Your task to perform on an android device: Search for a new desk on Ikea Image 0: 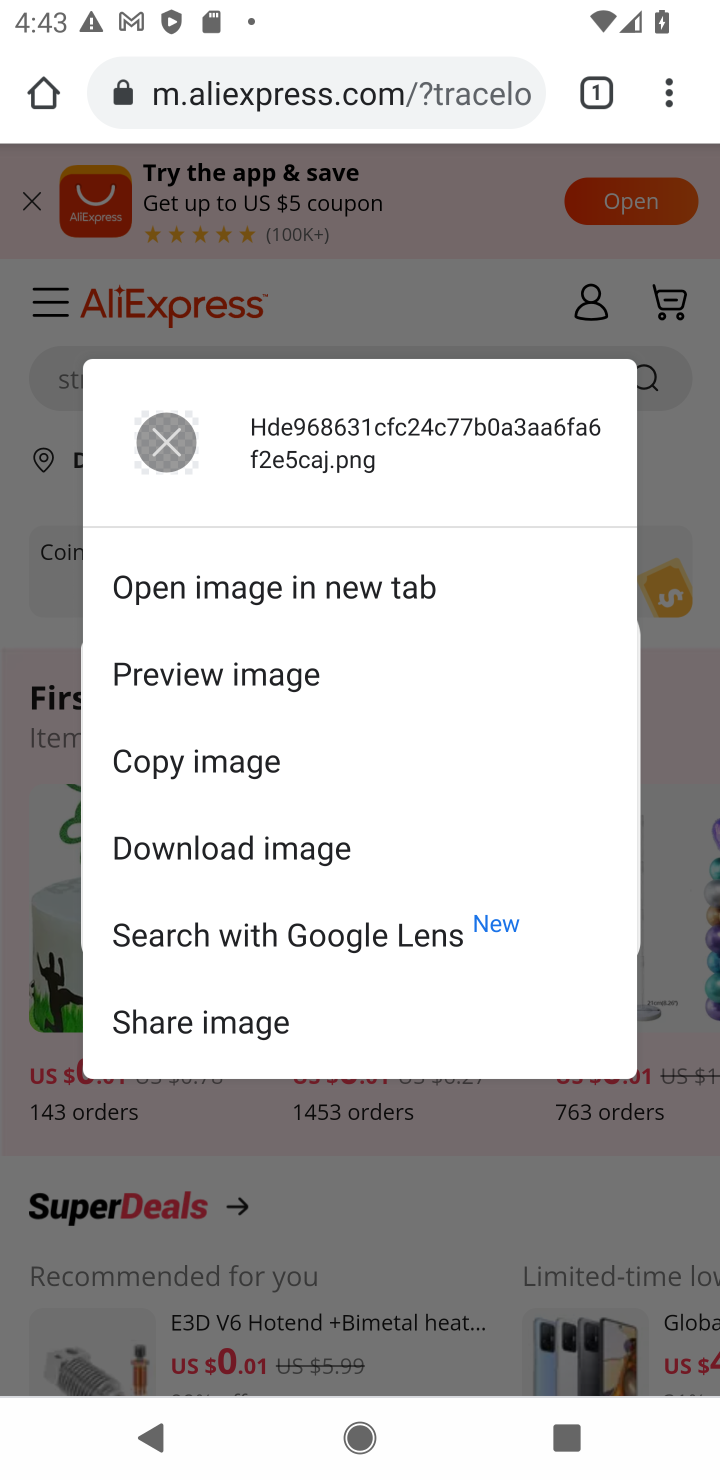
Step 0: press home button
Your task to perform on an android device: Search for a new desk on Ikea Image 1: 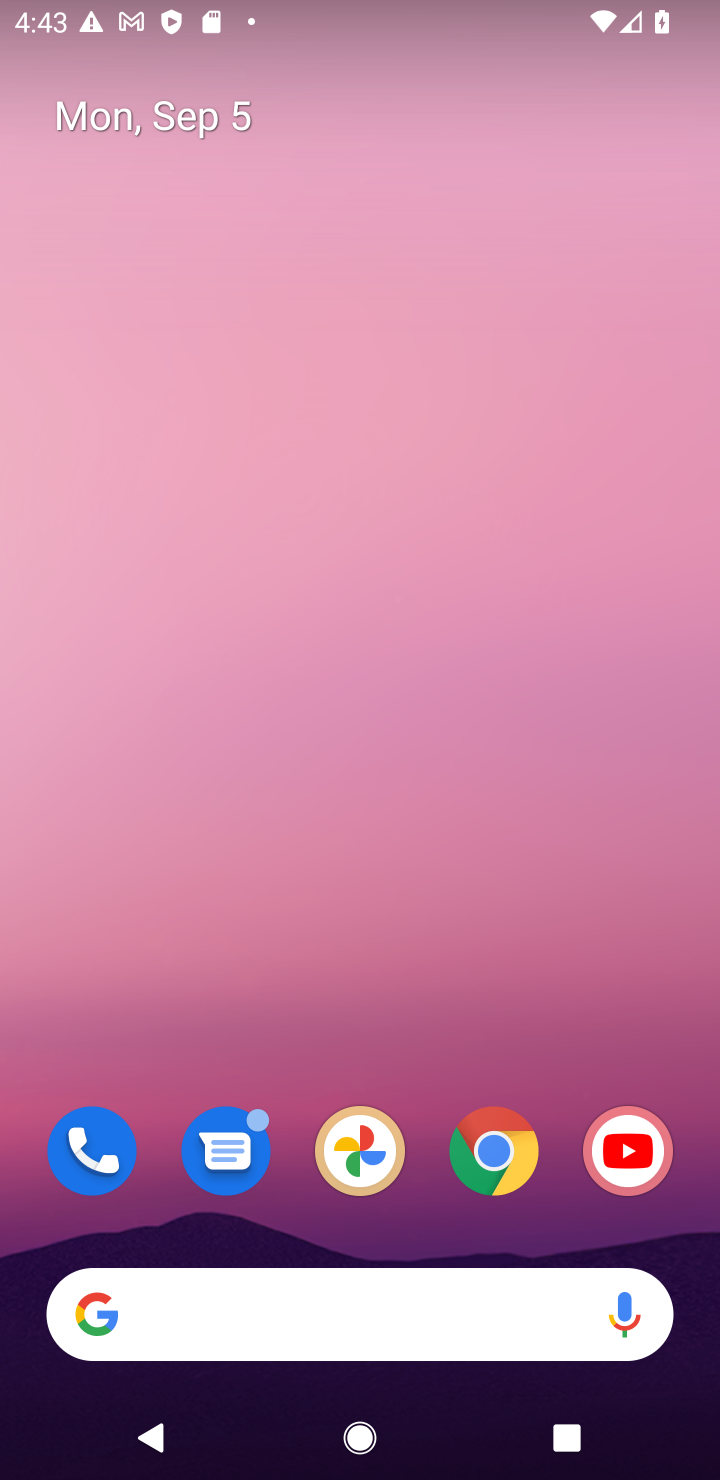
Step 1: click (517, 1139)
Your task to perform on an android device: Search for a new desk on Ikea Image 2: 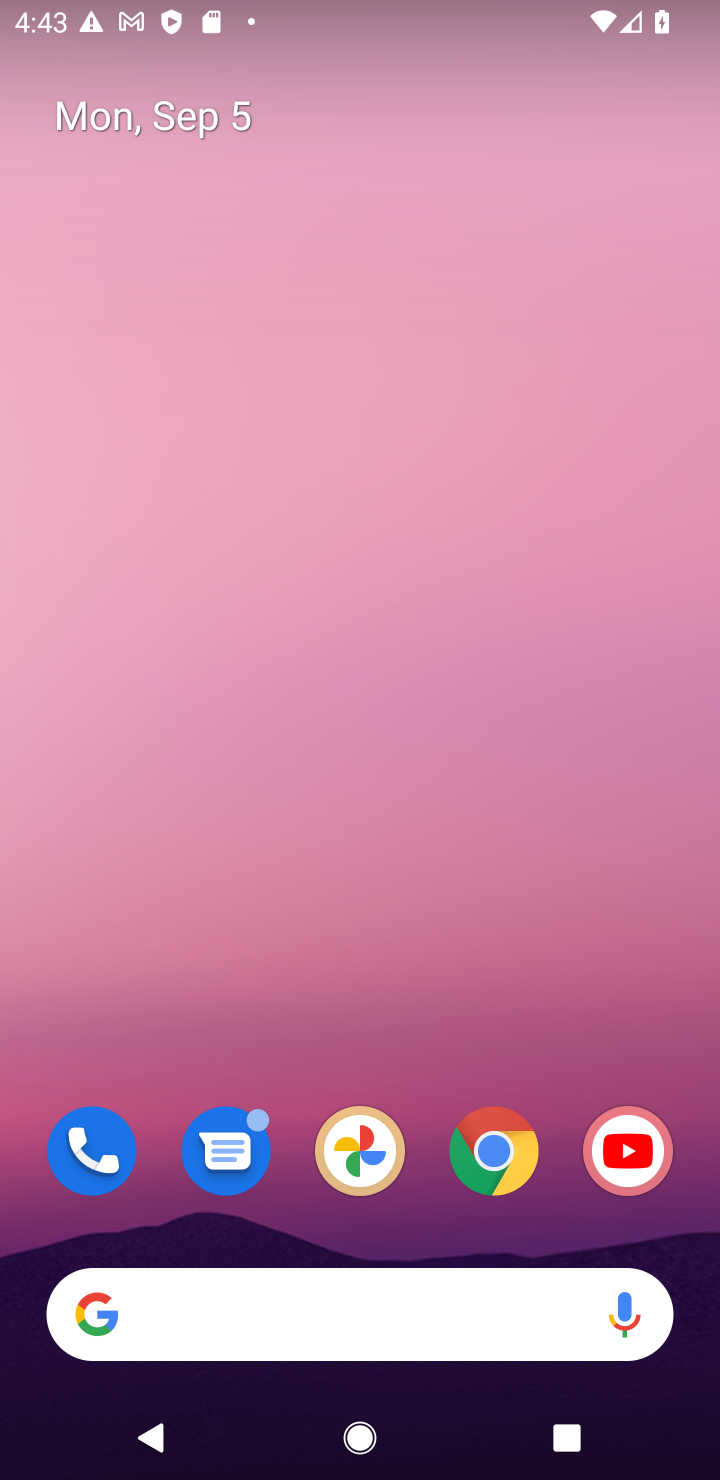
Step 2: click (517, 1139)
Your task to perform on an android device: Search for a new desk on Ikea Image 3: 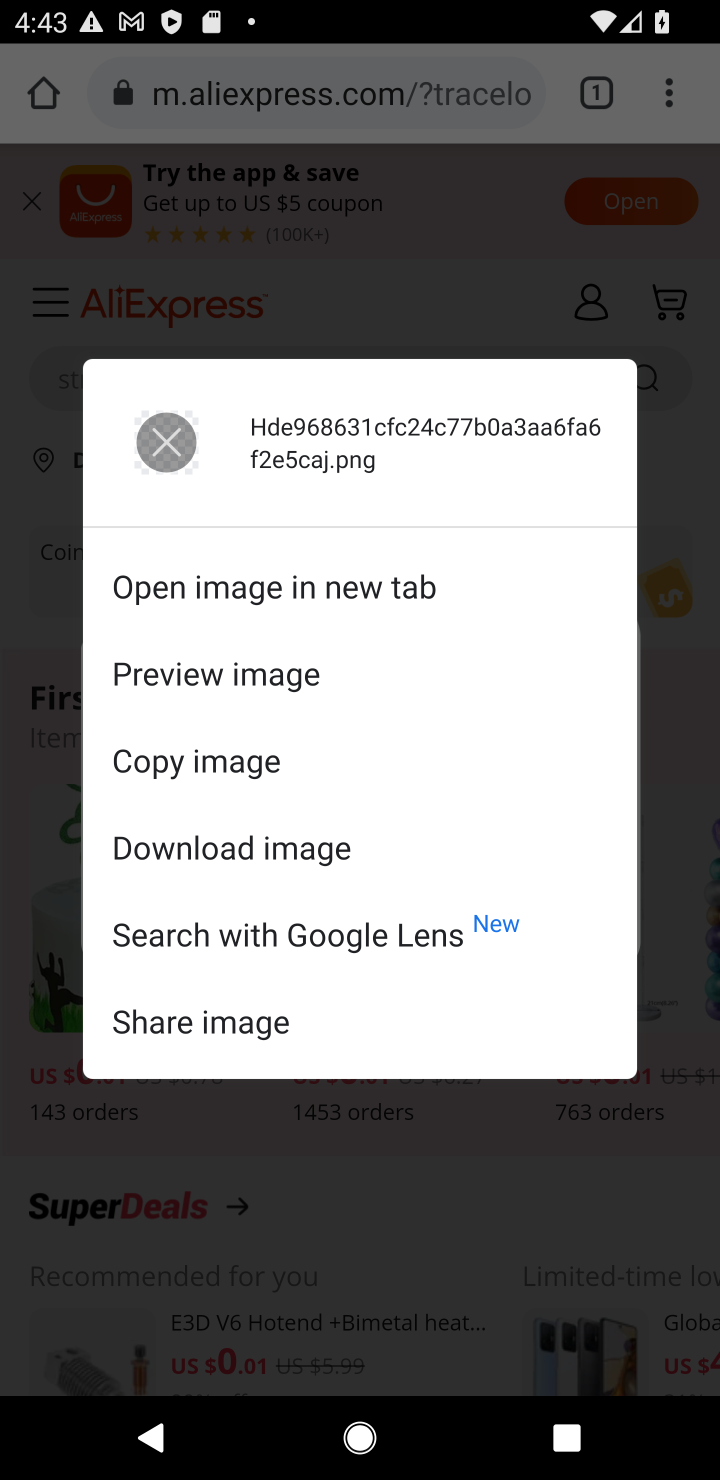
Step 3: click (176, 449)
Your task to perform on an android device: Search for a new desk on Ikea Image 4: 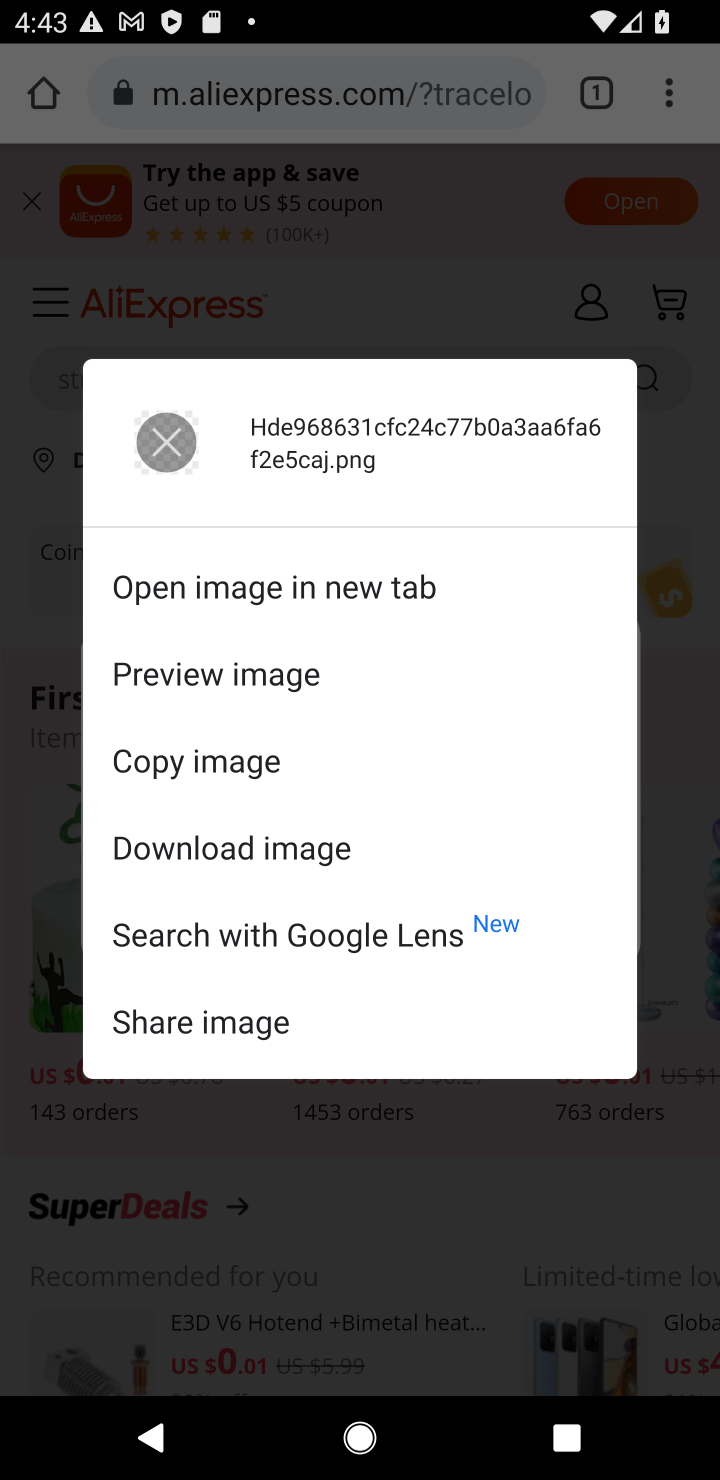
Step 4: click (318, 1206)
Your task to perform on an android device: Search for a new desk on Ikea Image 5: 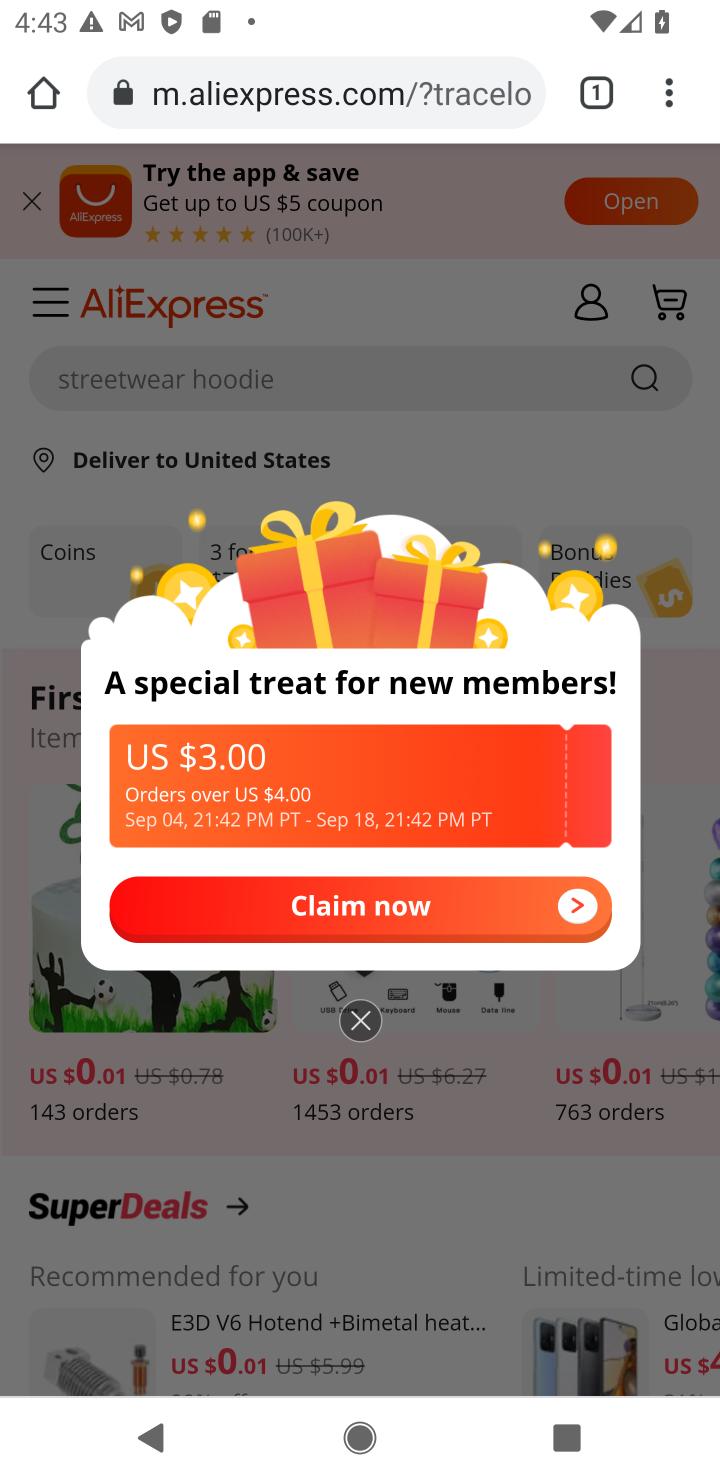
Step 5: click (412, 91)
Your task to perform on an android device: Search for a new desk on Ikea Image 6: 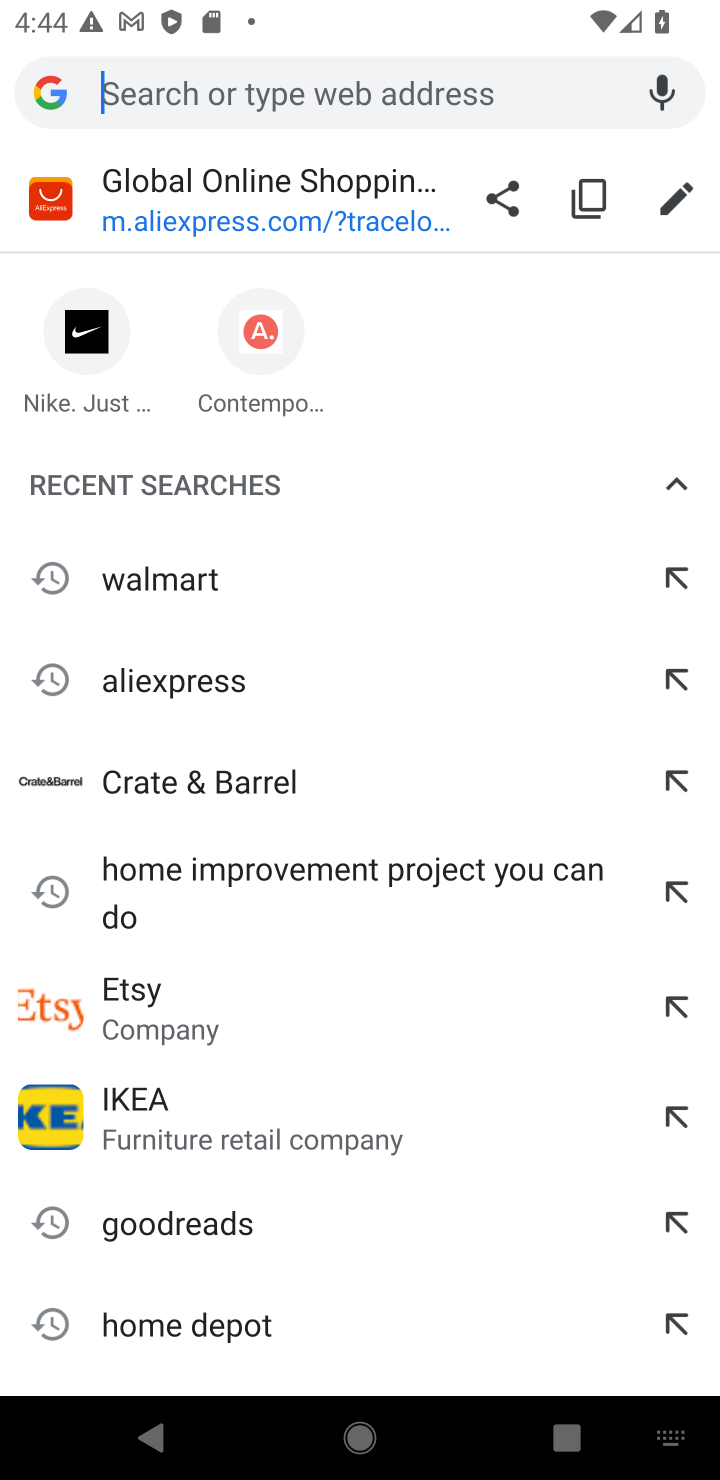
Step 6: click (209, 1114)
Your task to perform on an android device: Search for a new desk on Ikea Image 7: 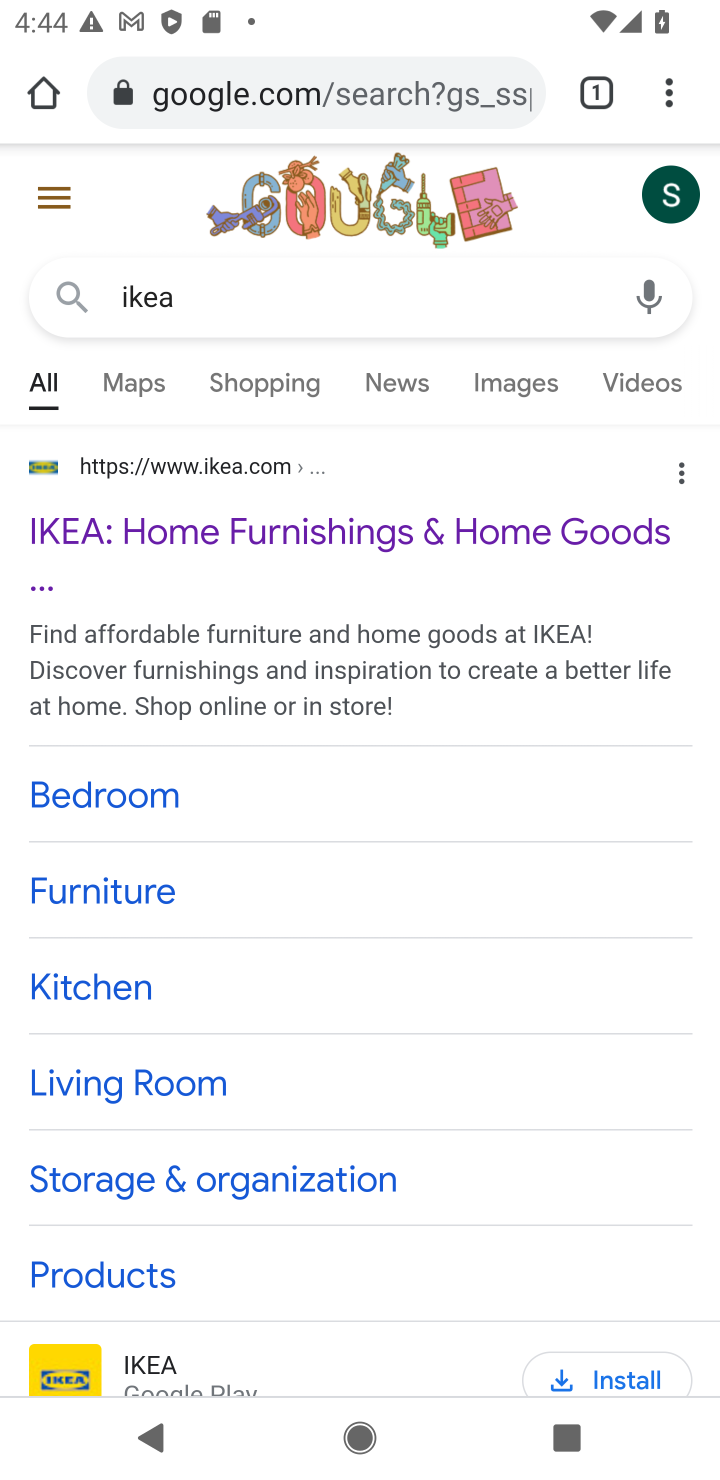
Step 7: click (235, 530)
Your task to perform on an android device: Search for a new desk on Ikea Image 8: 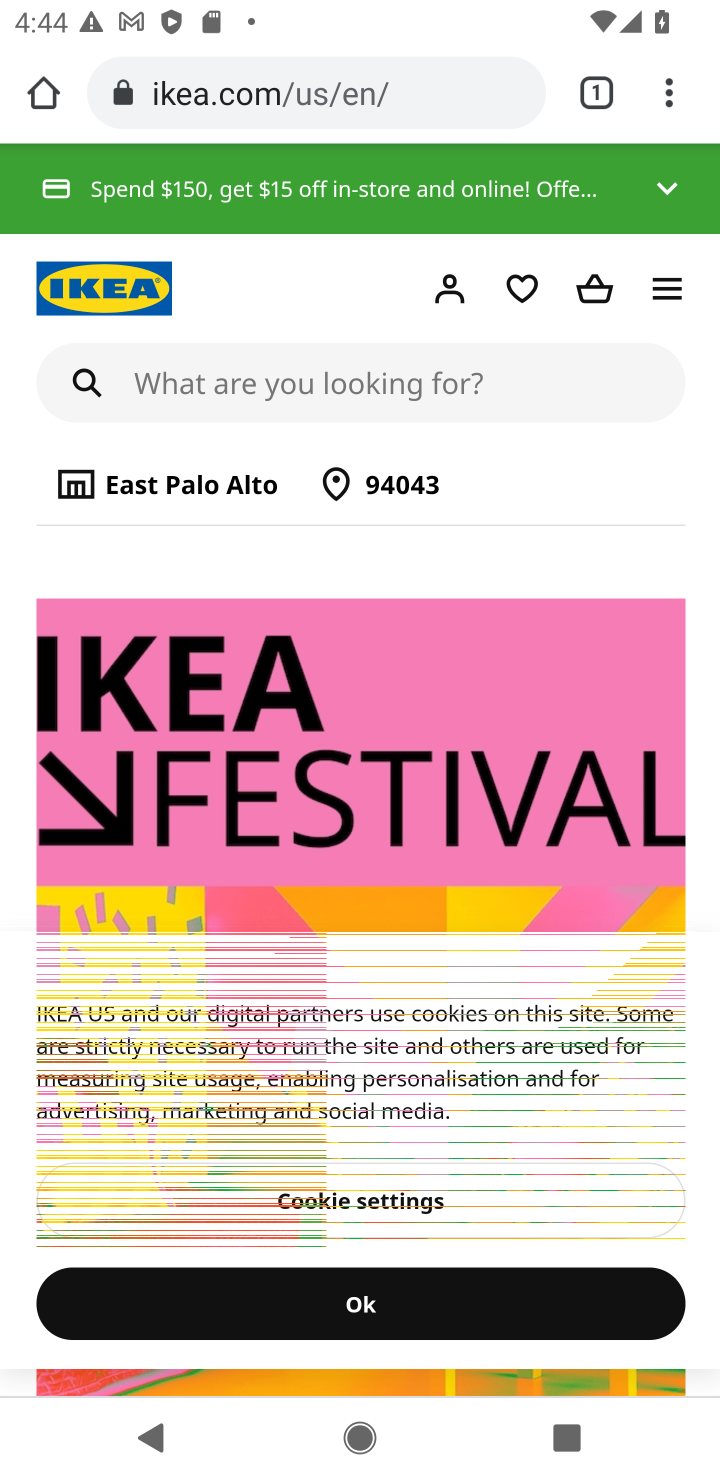
Step 8: click (452, 363)
Your task to perform on an android device: Search for a new desk on Ikea Image 9: 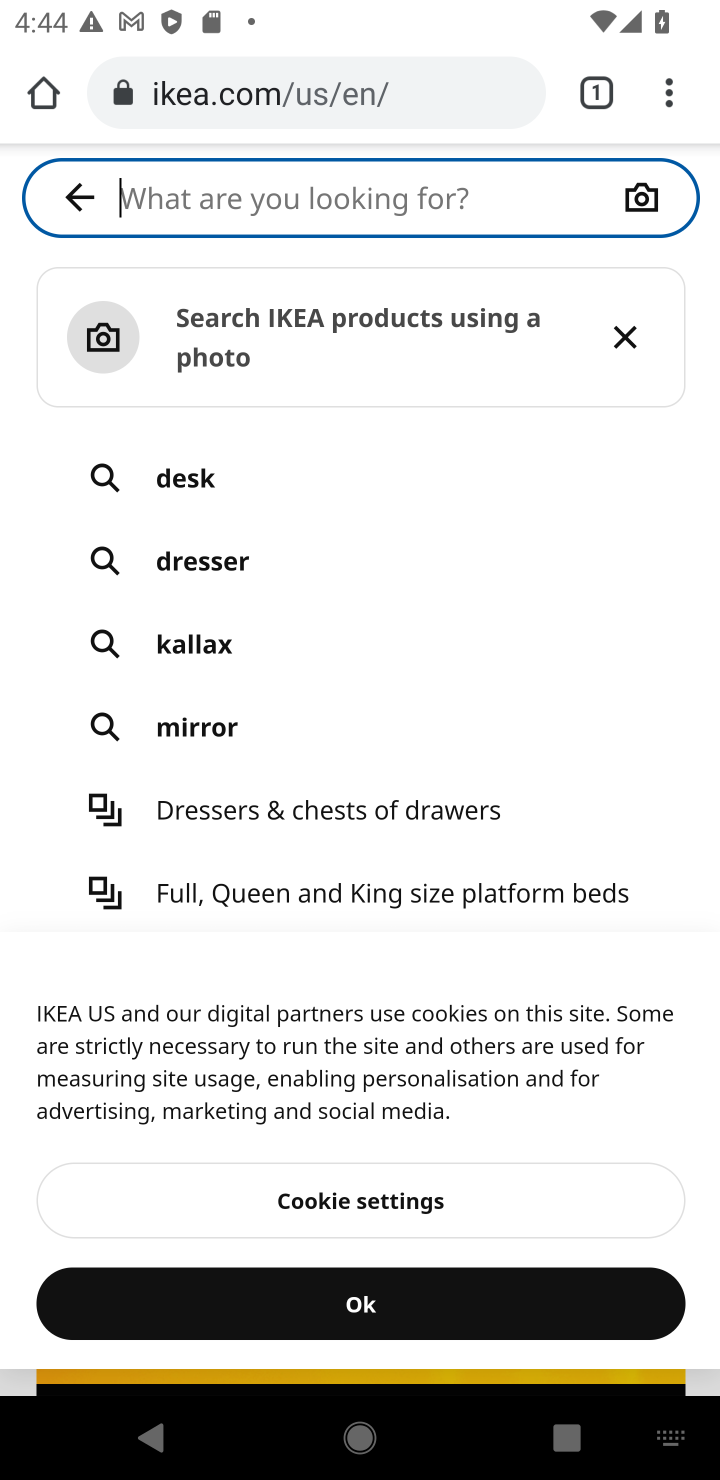
Step 9: type "new desk"
Your task to perform on an android device: Search for a new desk on Ikea Image 10: 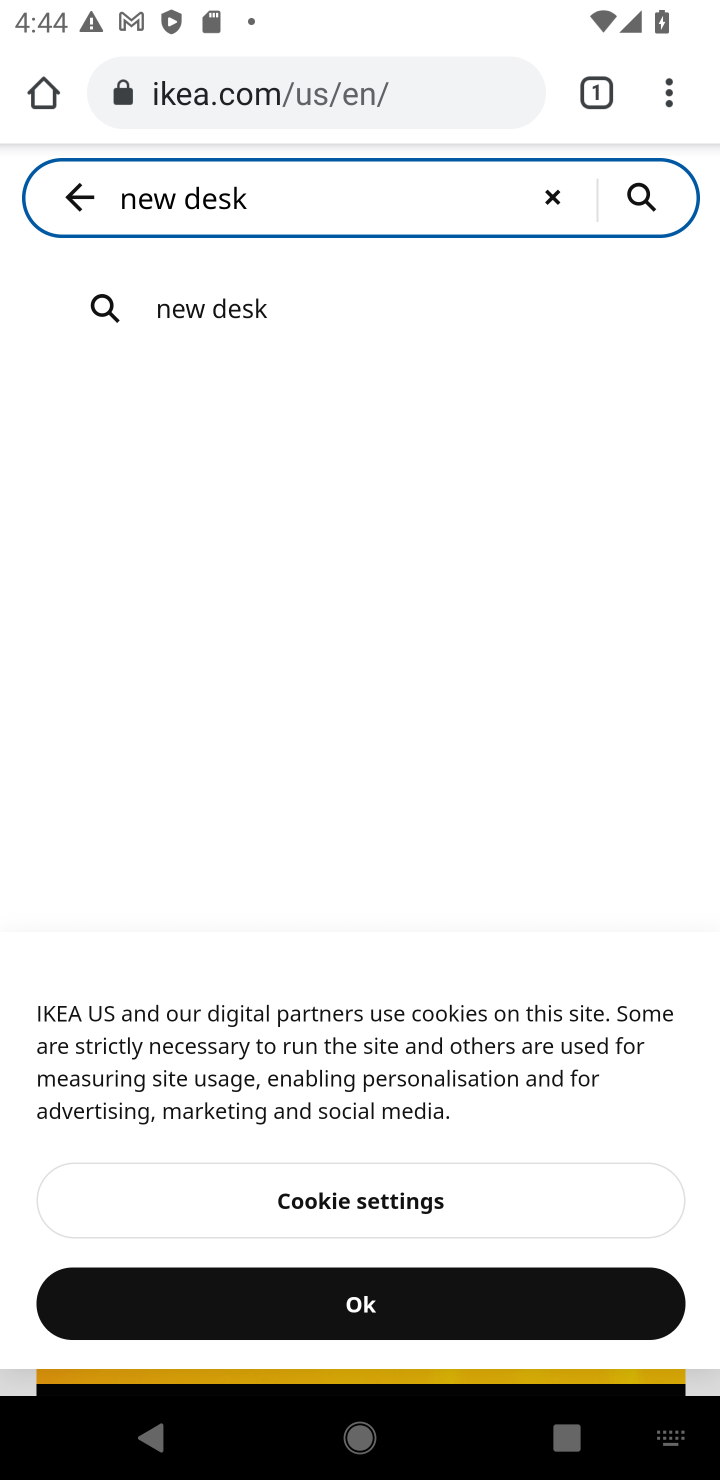
Step 10: click (211, 319)
Your task to perform on an android device: Search for a new desk on Ikea Image 11: 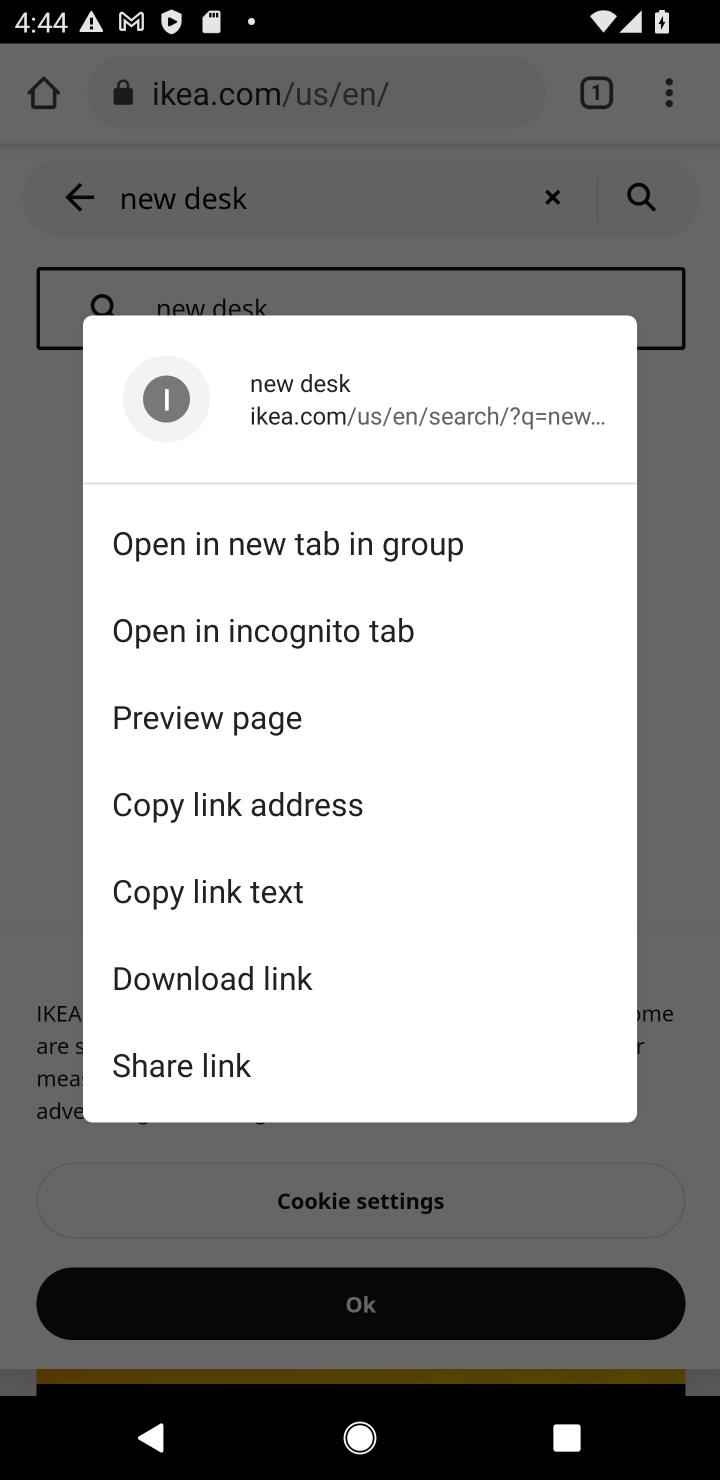
Step 11: click (531, 1207)
Your task to perform on an android device: Search for a new desk on Ikea Image 12: 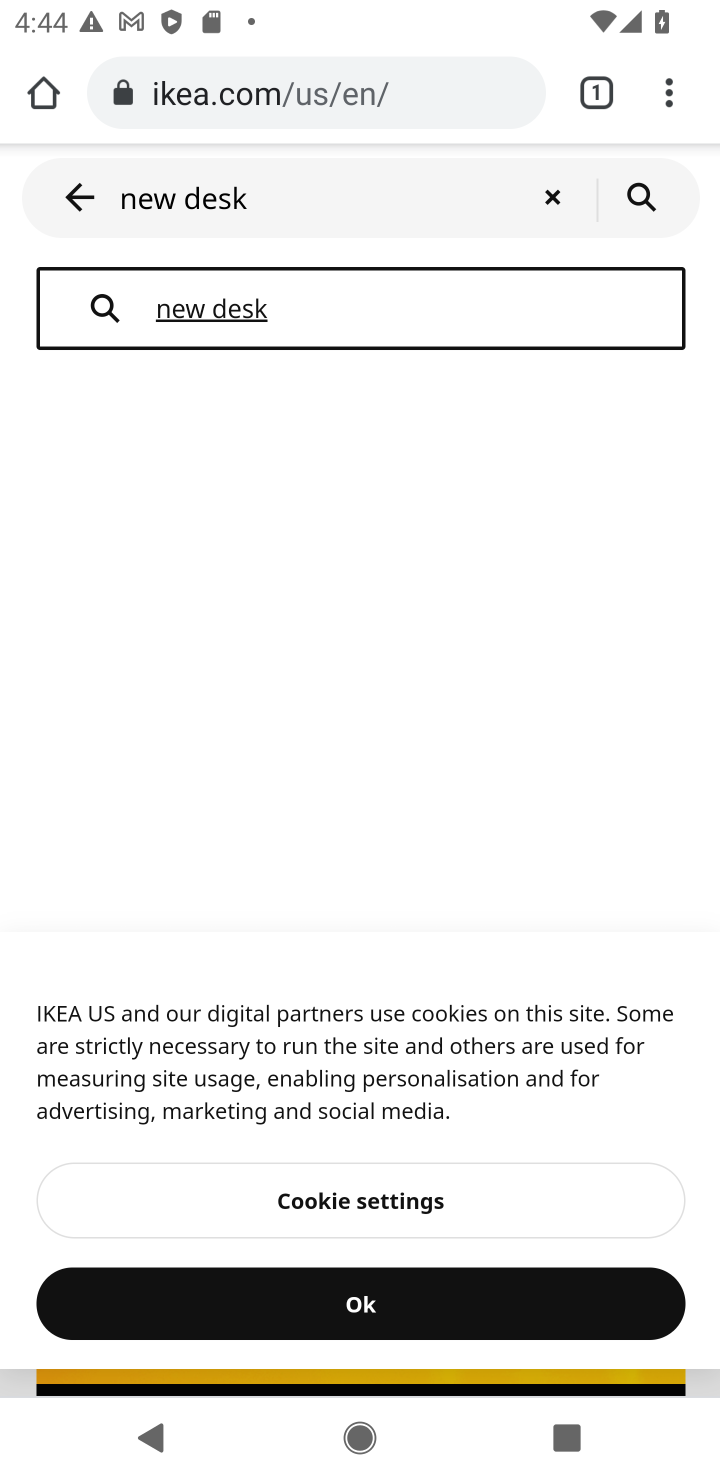
Step 12: click (399, 1308)
Your task to perform on an android device: Search for a new desk on Ikea Image 13: 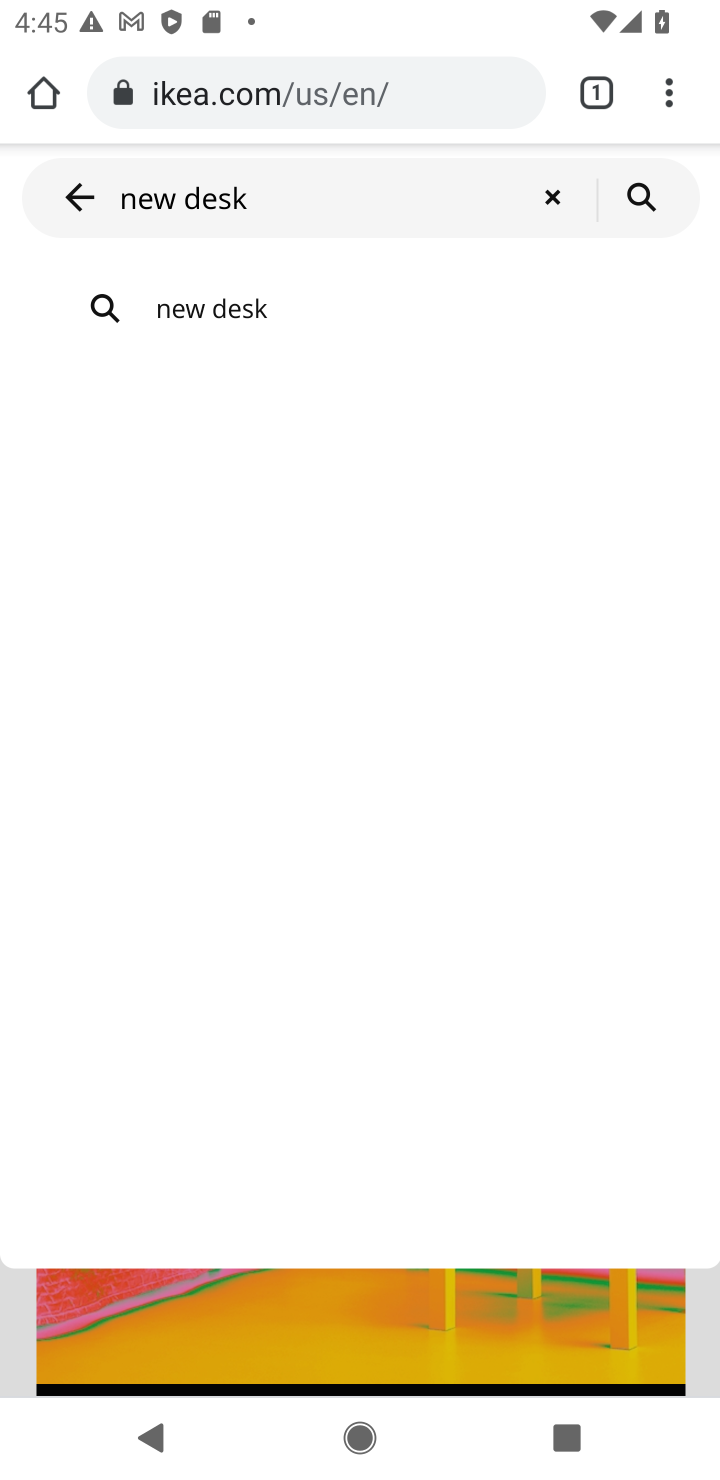
Step 13: click (405, 194)
Your task to perform on an android device: Search for a new desk on Ikea Image 14: 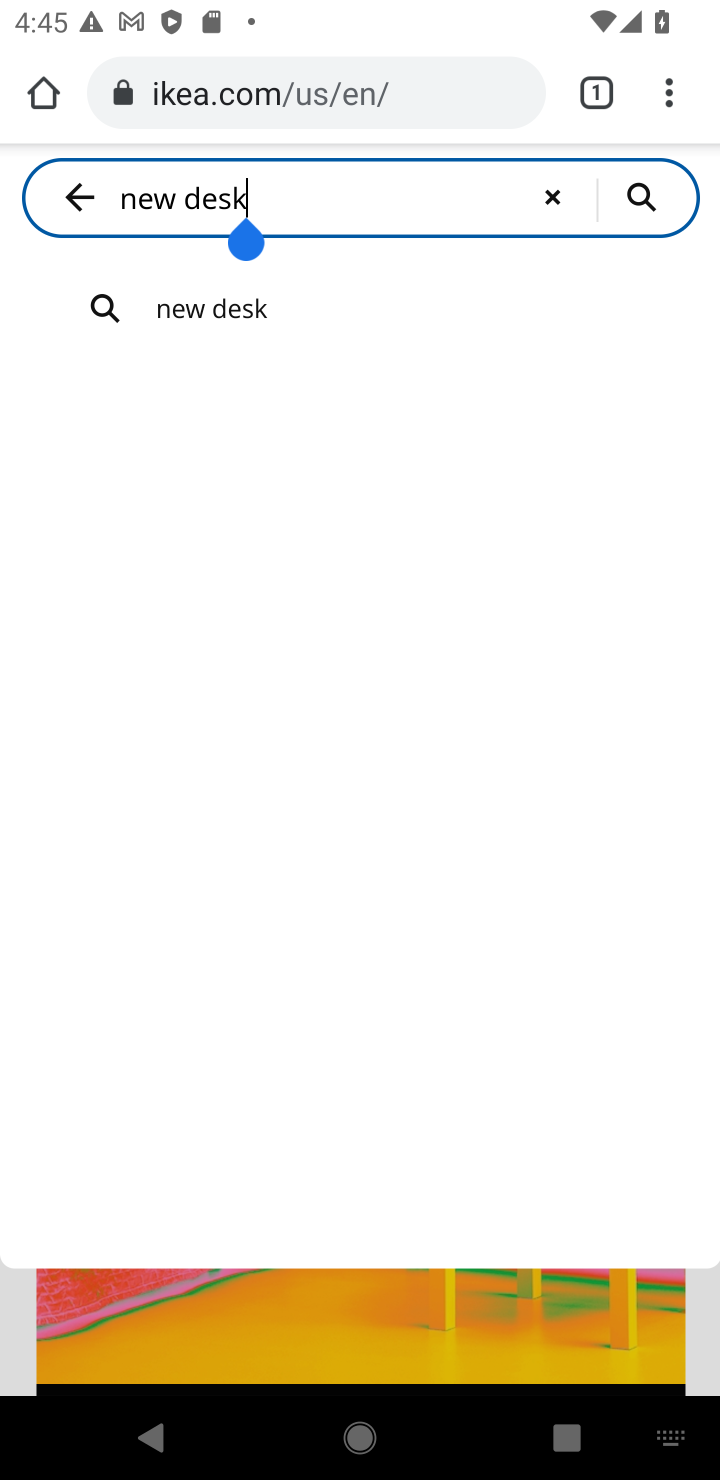
Step 14: click (230, 311)
Your task to perform on an android device: Search for a new desk on Ikea Image 15: 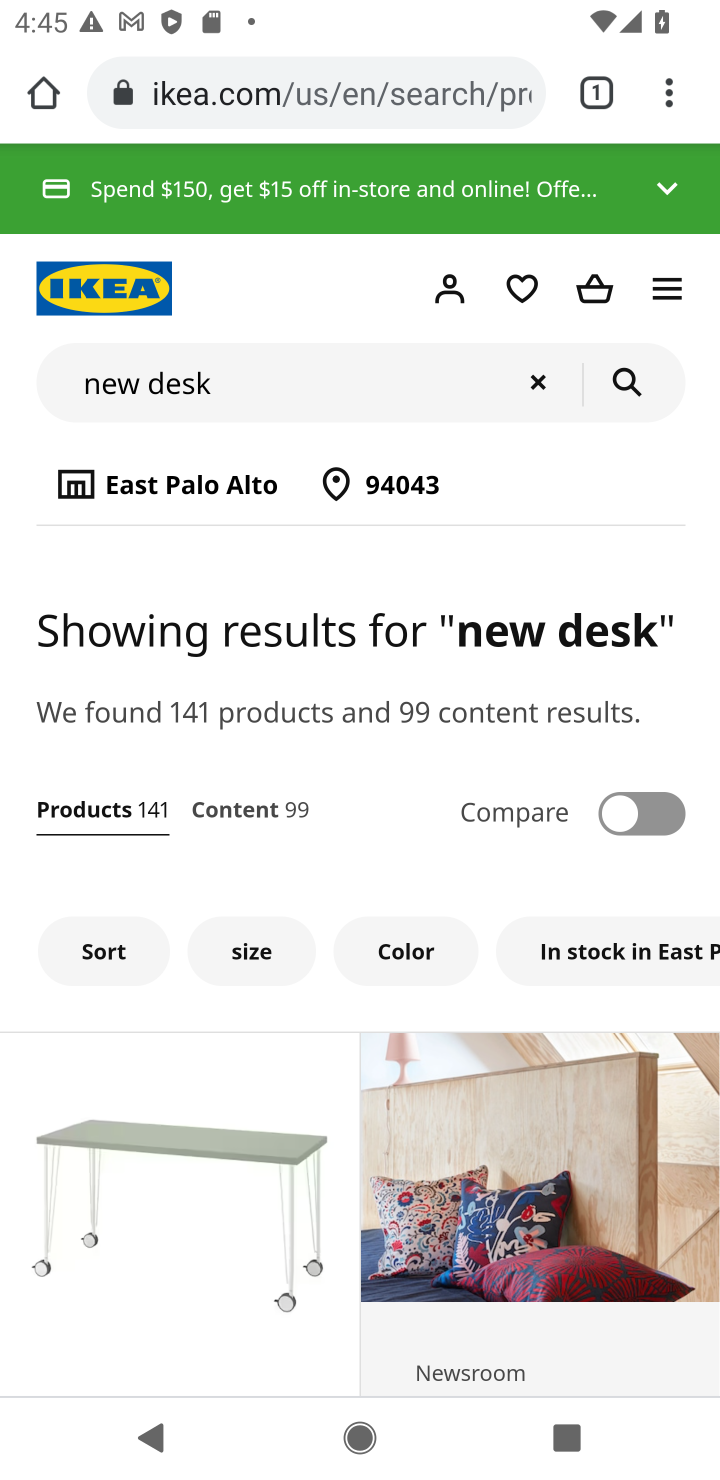
Step 15: task complete